Your task to perform on an android device: Check the news Image 0: 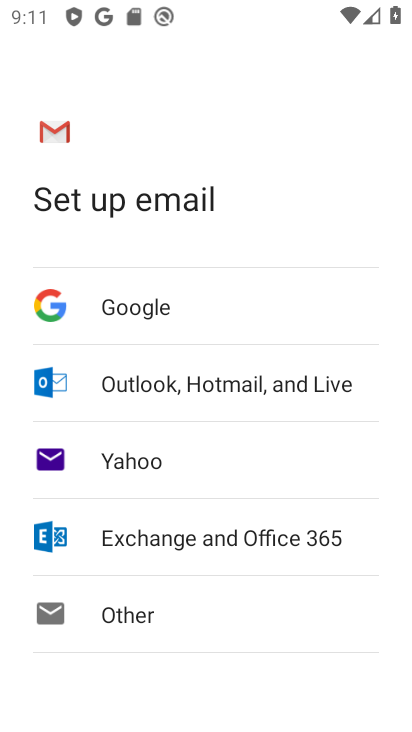
Step 0: press home button
Your task to perform on an android device: Check the news Image 1: 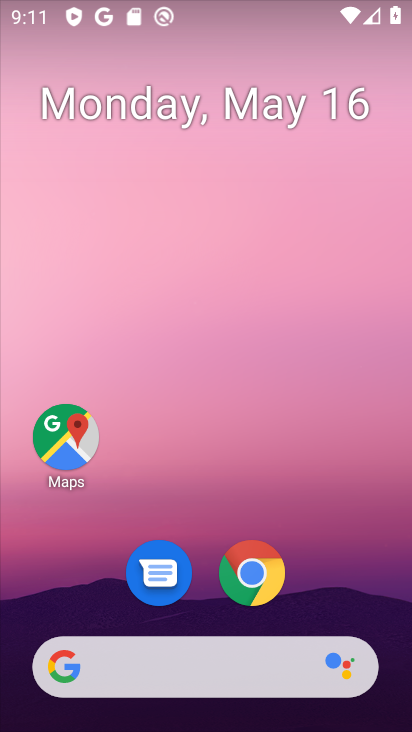
Step 1: click (259, 568)
Your task to perform on an android device: Check the news Image 2: 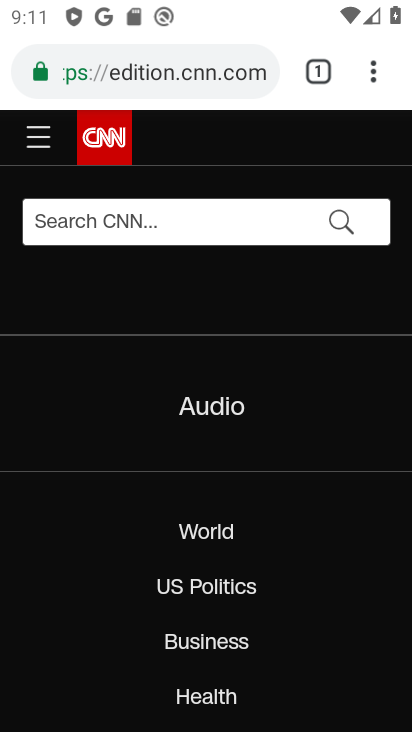
Step 2: click (216, 65)
Your task to perform on an android device: Check the news Image 3: 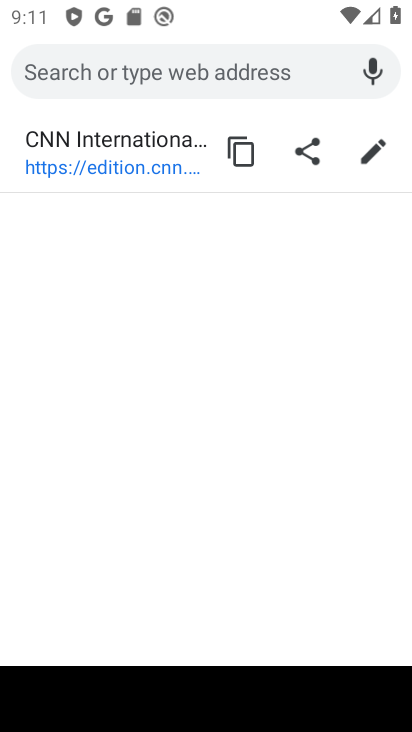
Step 3: type "news"
Your task to perform on an android device: Check the news Image 4: 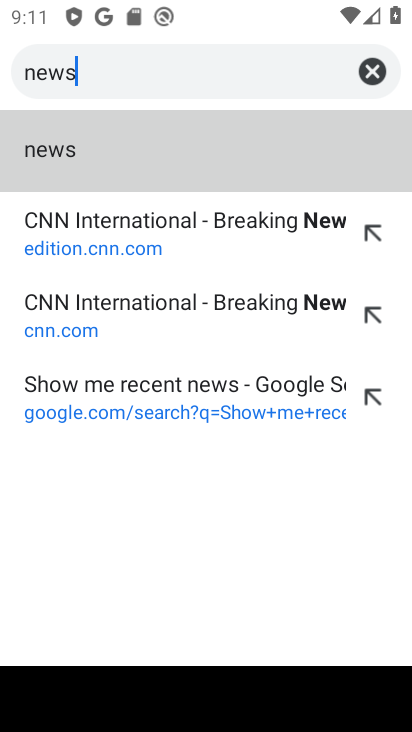
Step 4: click (37, 141)
Your task to perform on an android device: Check the news Image 5: 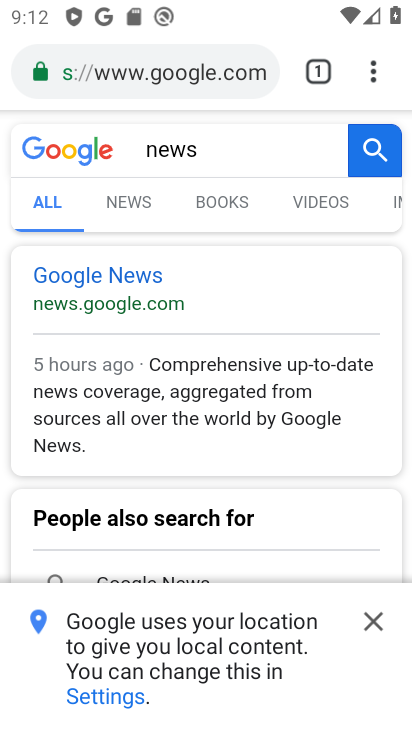
Step 5: click (114, 274)
Your task to perform on an android device: Check the news Image 6: 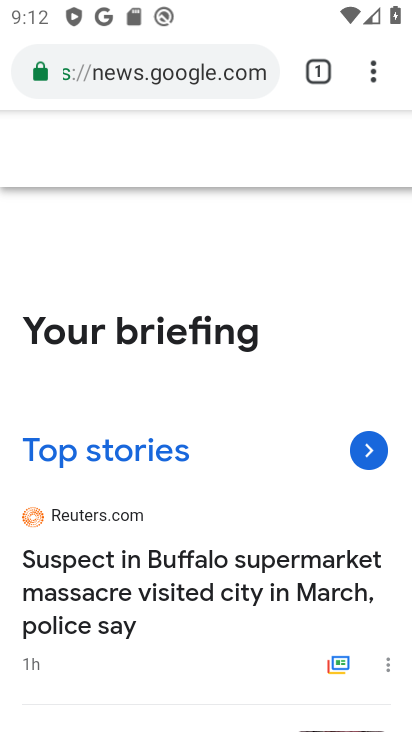
Step 6: task complete